Your task to perform on an android device: add a contact Image 0: 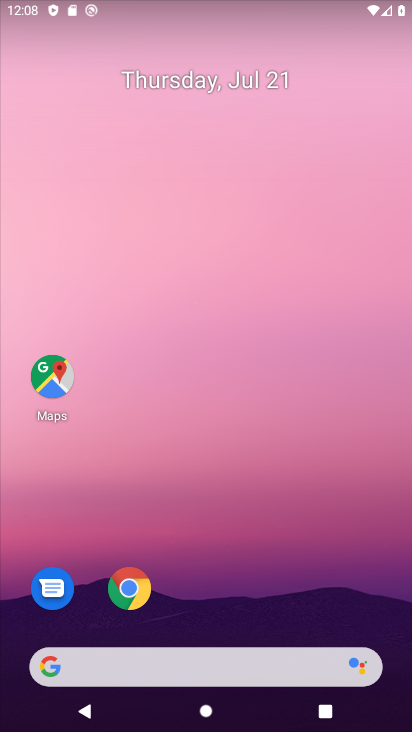
Step 0: drag from (213, 460) to (216, 59)
Your task to perform on an android device: add a contact Image 1: 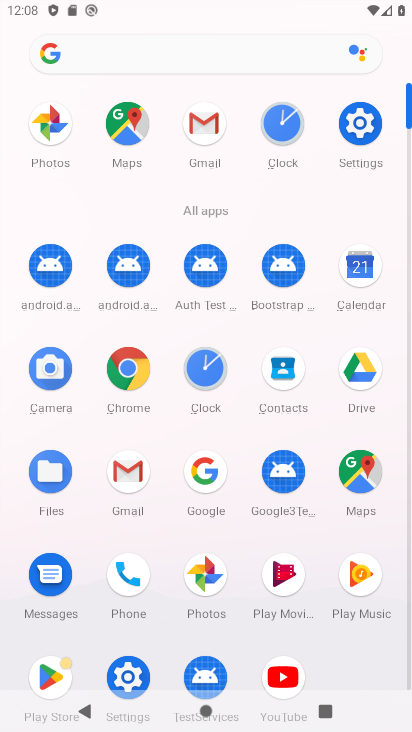
Step 1: click (285, 370)
Your task to perform on an android device: add a contact Image 2: 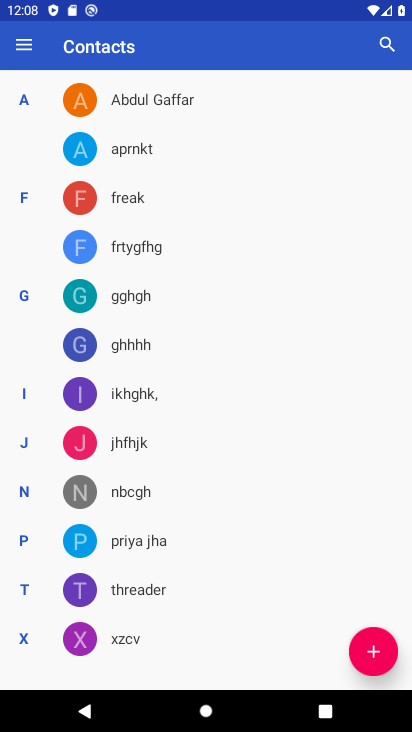
Step 2: click (379, 655)
Your task to perform on an android device: add a contact Image 3: 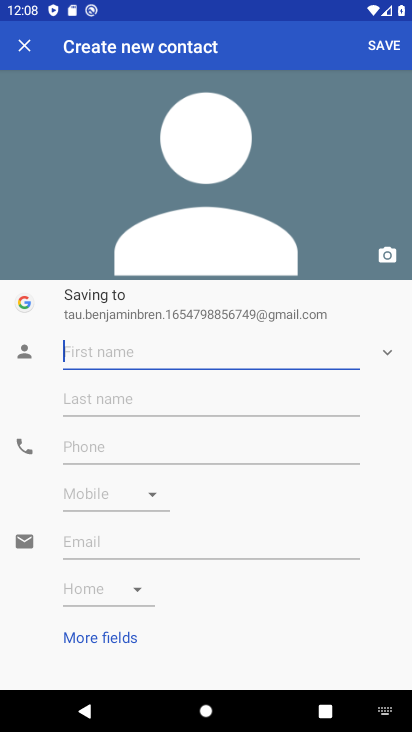
Step 3: type "abc"
Your task to perform on an android device: add a contact Image 4: 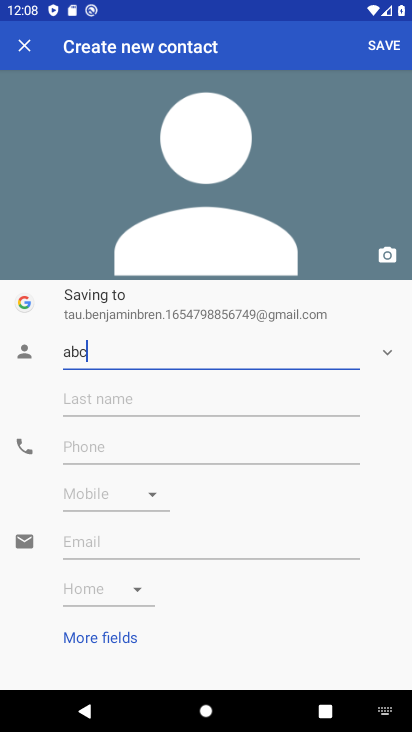
Step 4: press enter
Your task to perform on an android device: add a contact Image 5: 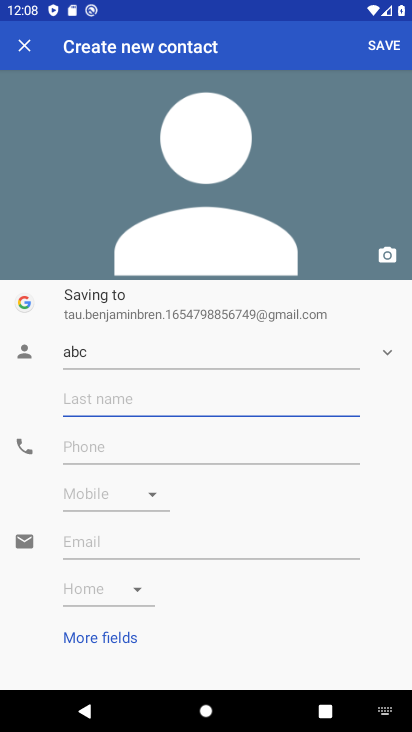
Step 5: click (169, 407)
Your task to perform on an android device: add a contact Image 6: 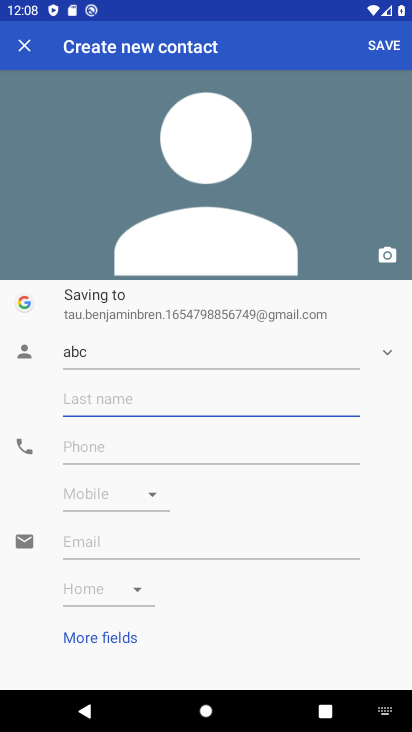
Step 6: click (157, 453)
Your task to perform on an android device: add a contact Image 7: 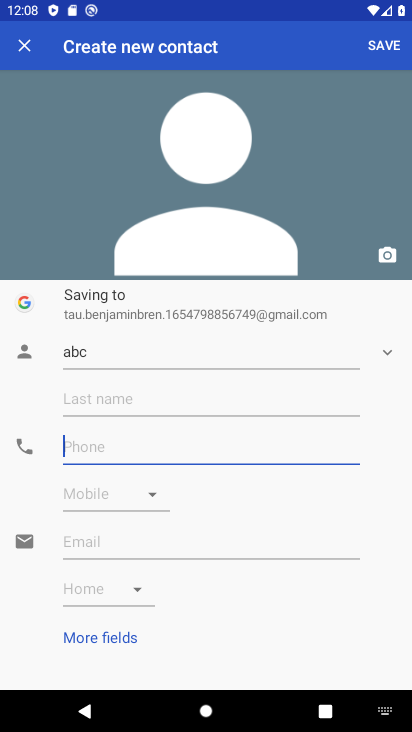
Step 7: type "897765r5e5"
Your task to perform on an android device: add a contact Image 8: 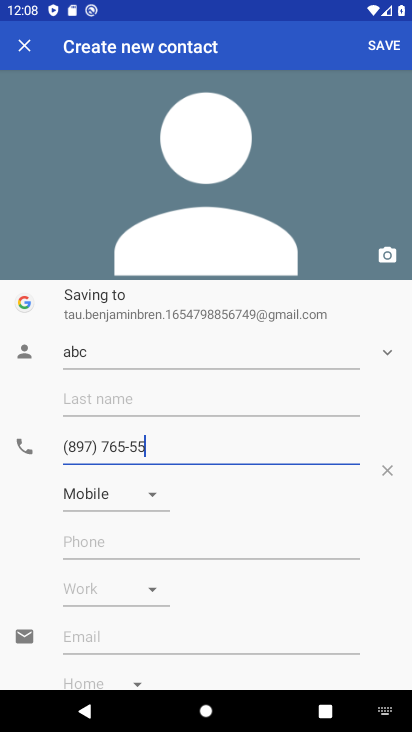
Step 8: type ""
Your task to perform on an android device: add a contact Image 9: 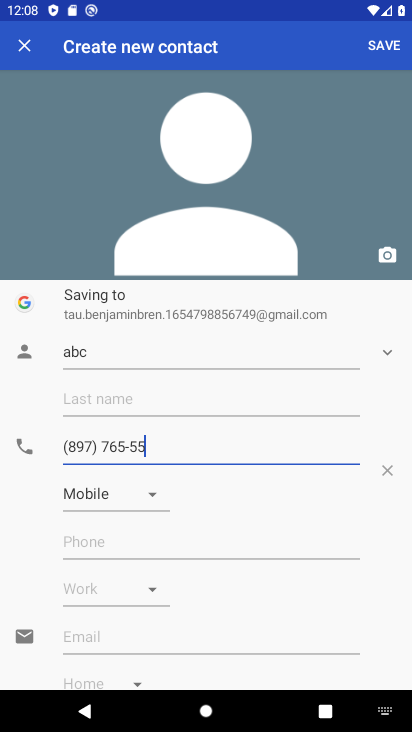
Step 9: press enter
Your task to perform on an android device: add a contact Image 10: 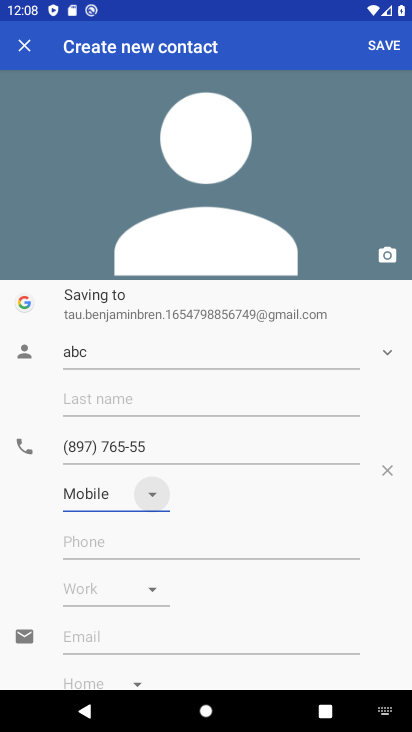
Step 10: click (388, 46)
Your task to perform on an android device: add a contact Image 11: 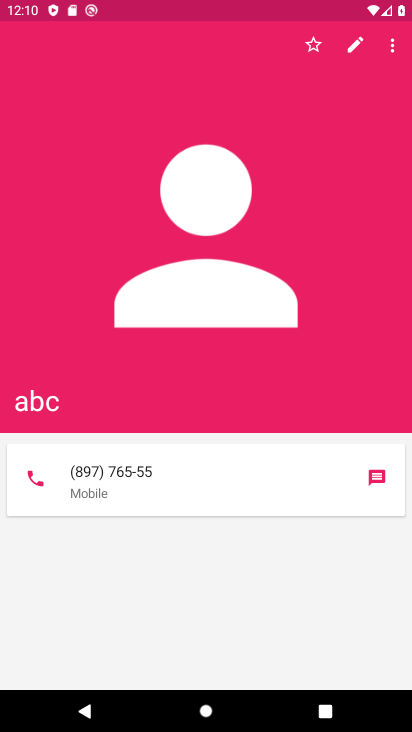
Step 11: task complete